Your task to perform on an android device: turn off location Image 0: 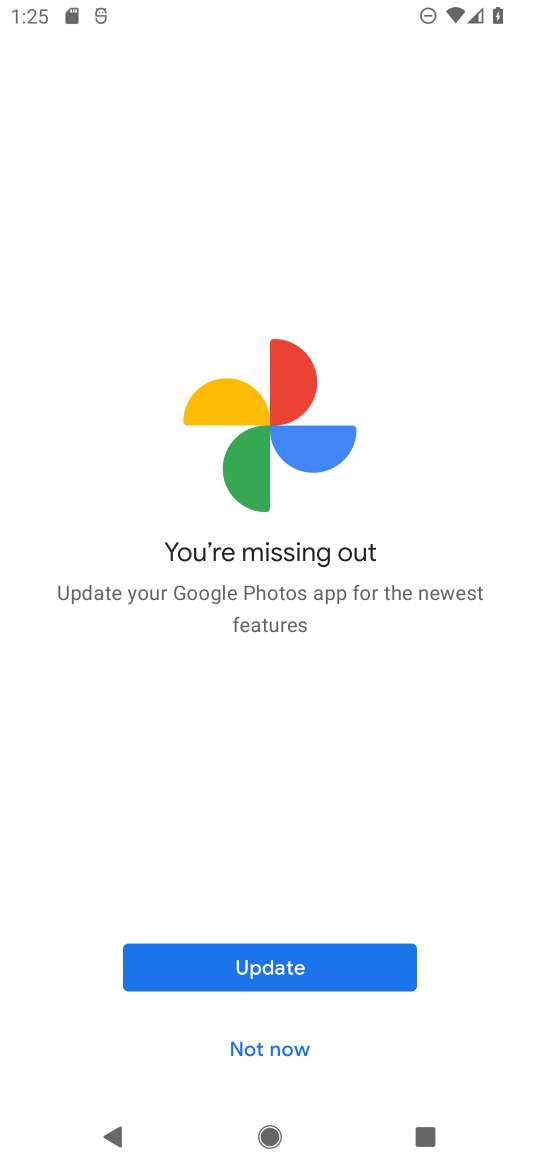
Step 0: click (327, 949)
Your task to perform on an android device: turn off location Image 1: 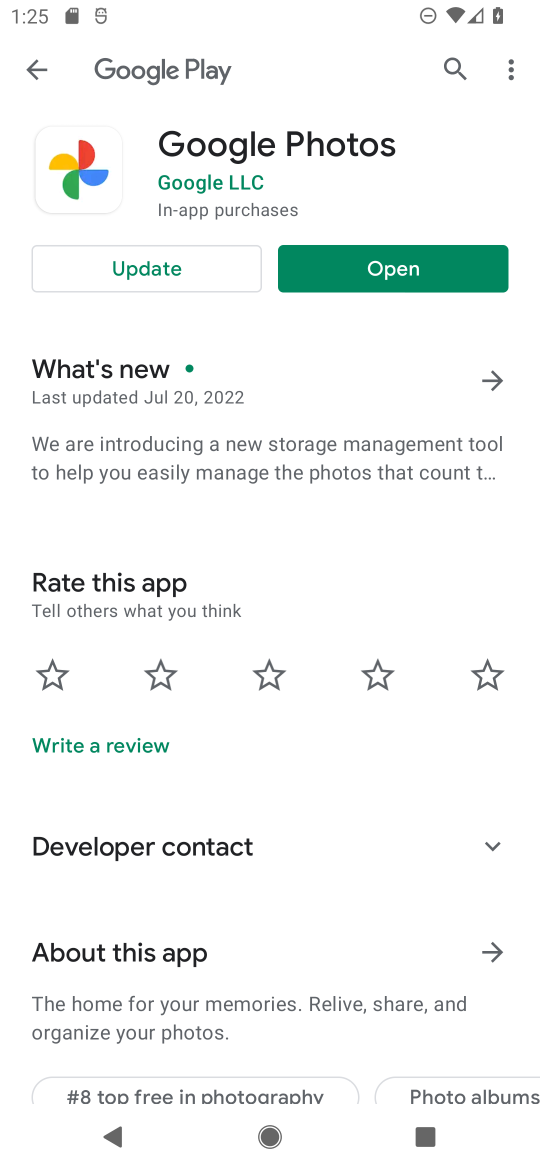
Step 1: press home button
Your task to perform on an android device: turn off location Image 2: 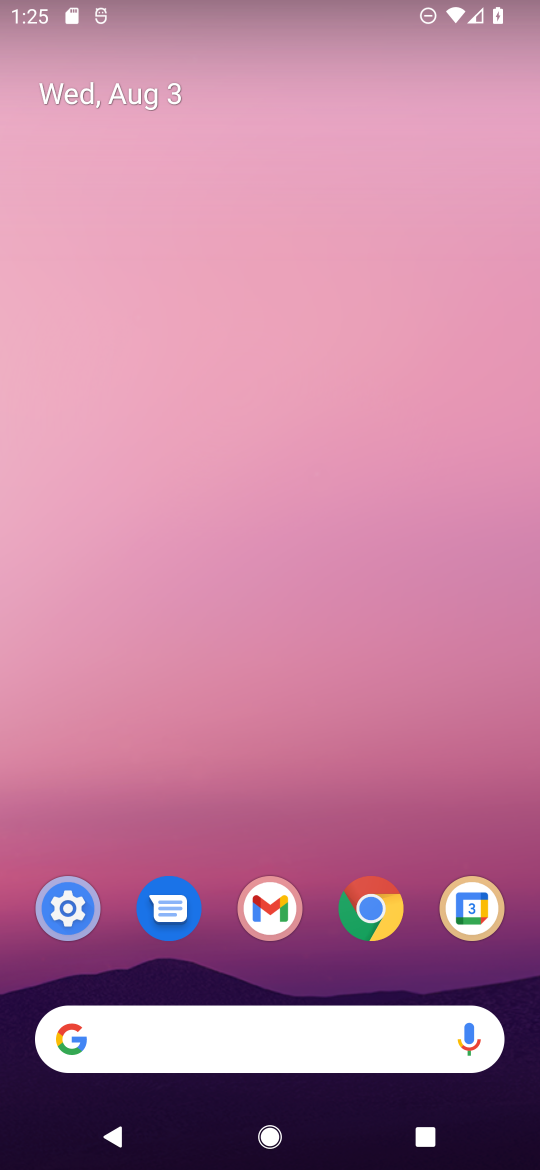
Step 2: click (67, 905)
Your task to perform on an android device: turn off location Image 3: 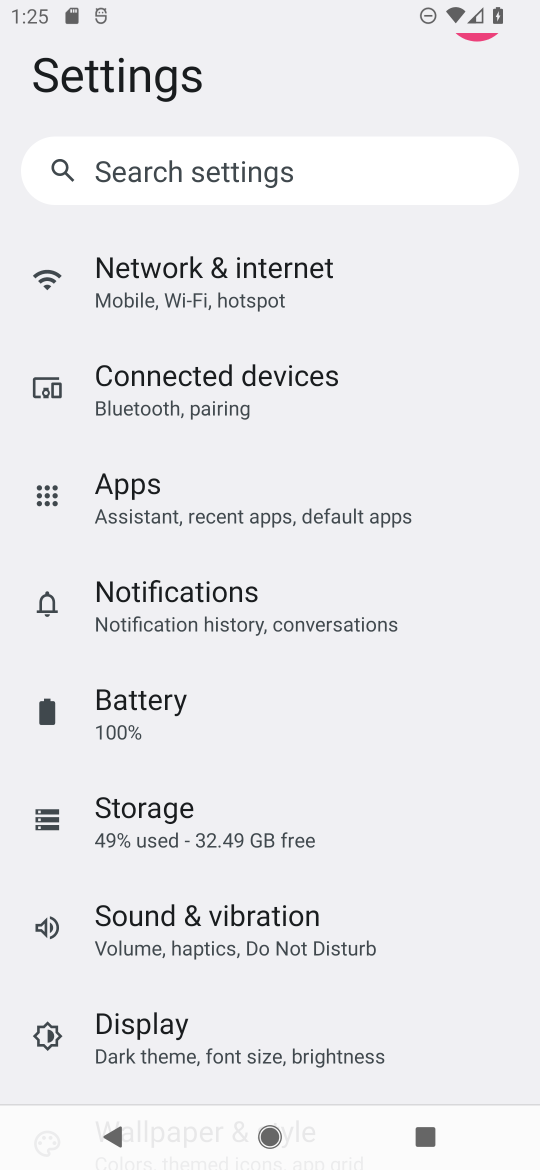
Step 3: drag from (223, 860) to (213, 398)
Your task to perform on an android device: turn off location Image 4: 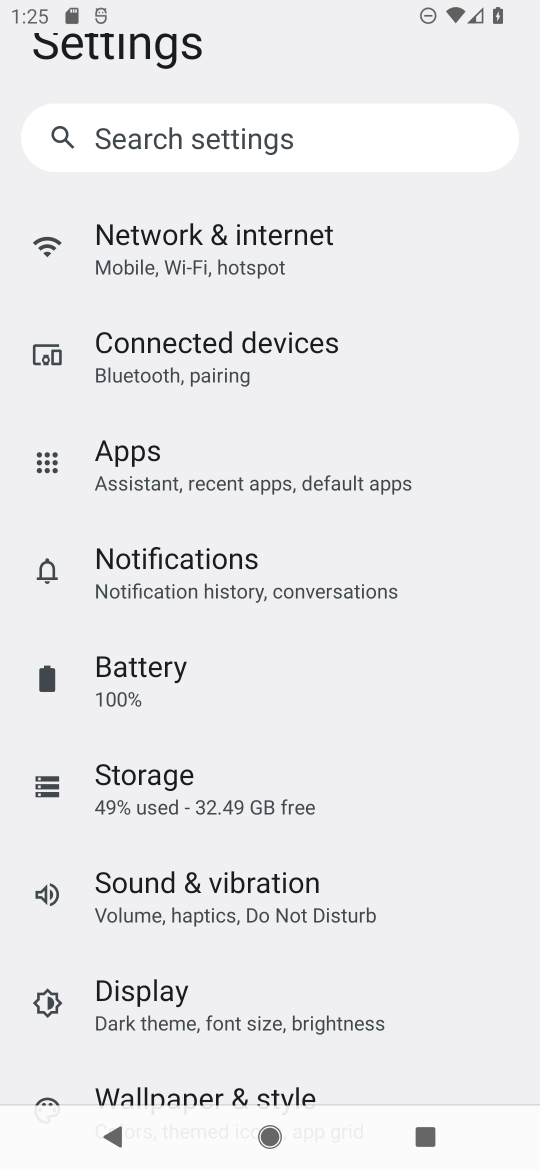
Step 4: drag from (250, 695) to (235, 415)
Your task to perform on an android device: turn off location Image 5: 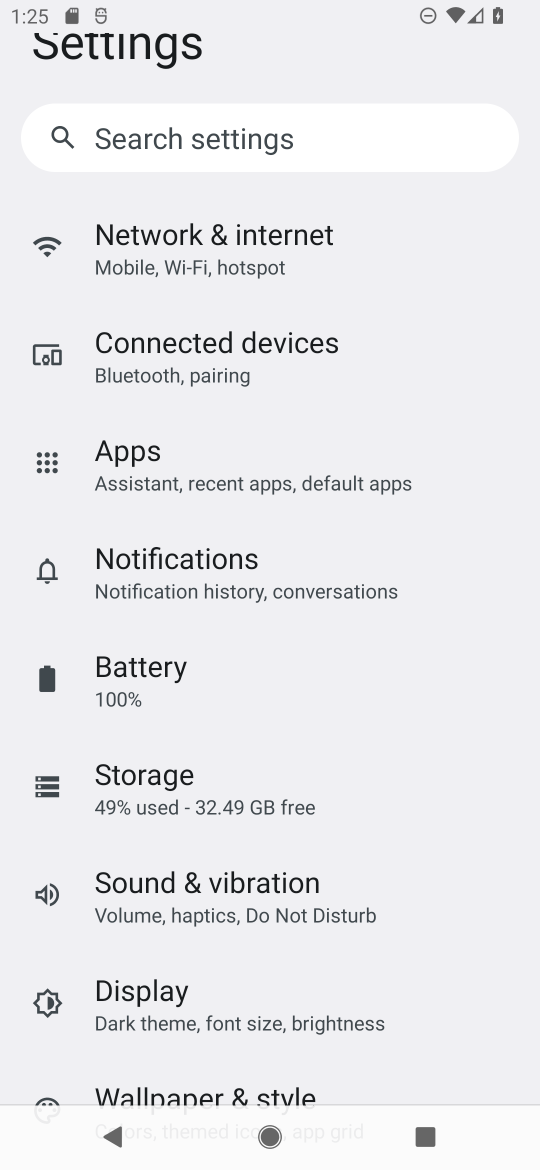
Step 5: drag from (201, 975) to (201, 424)
Your task to perform on an android device: turn off location Image 6: 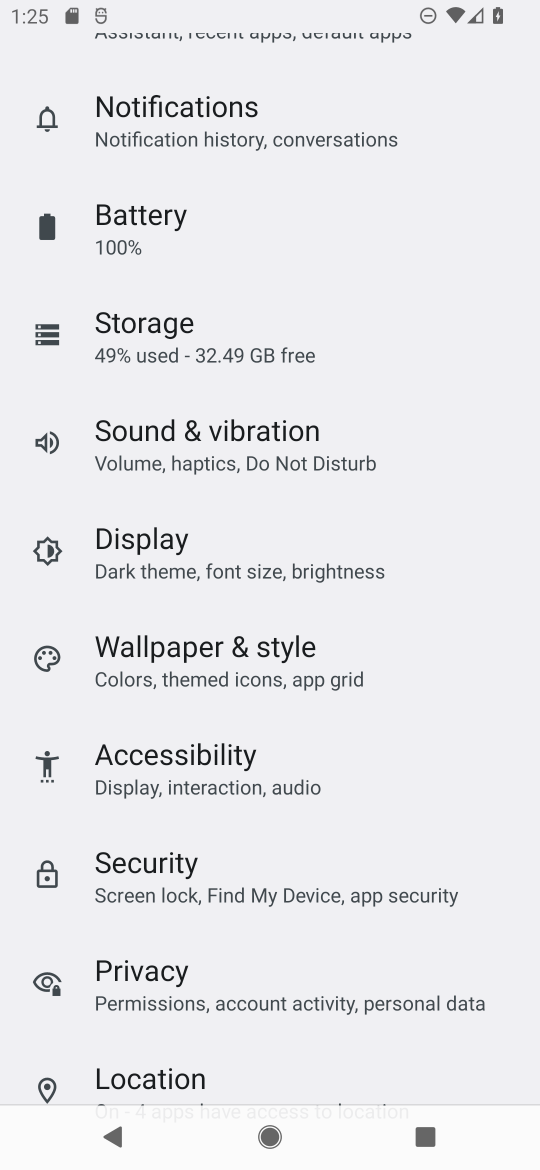
Step 6: click (148, 1082)
Your task to perform on an android device: turn off location Image 7: 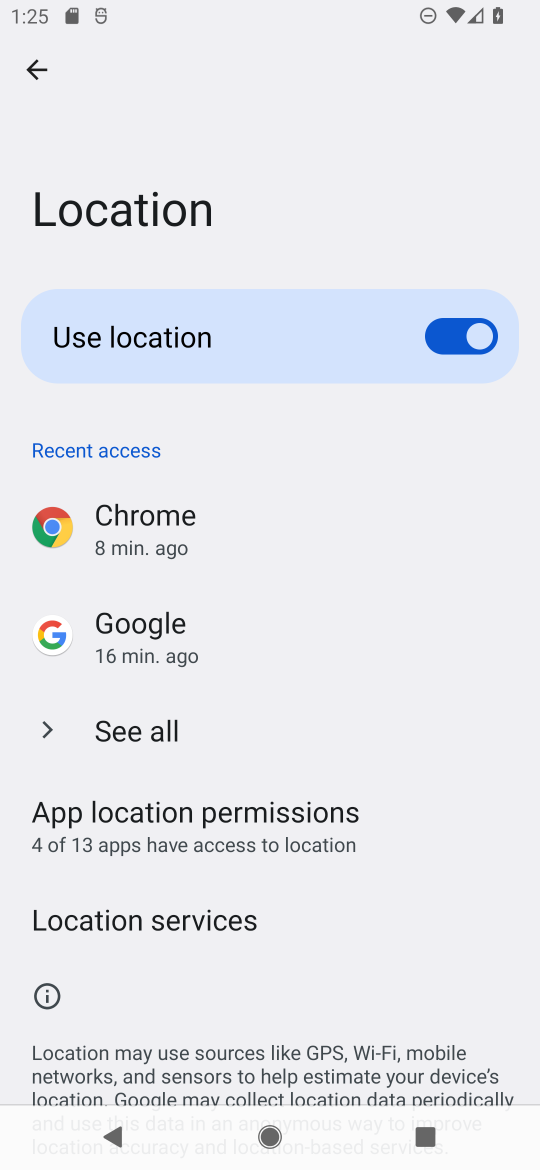
Step 7: click (446, 342)
Your task to perform on an android device: turn off location Image 8: 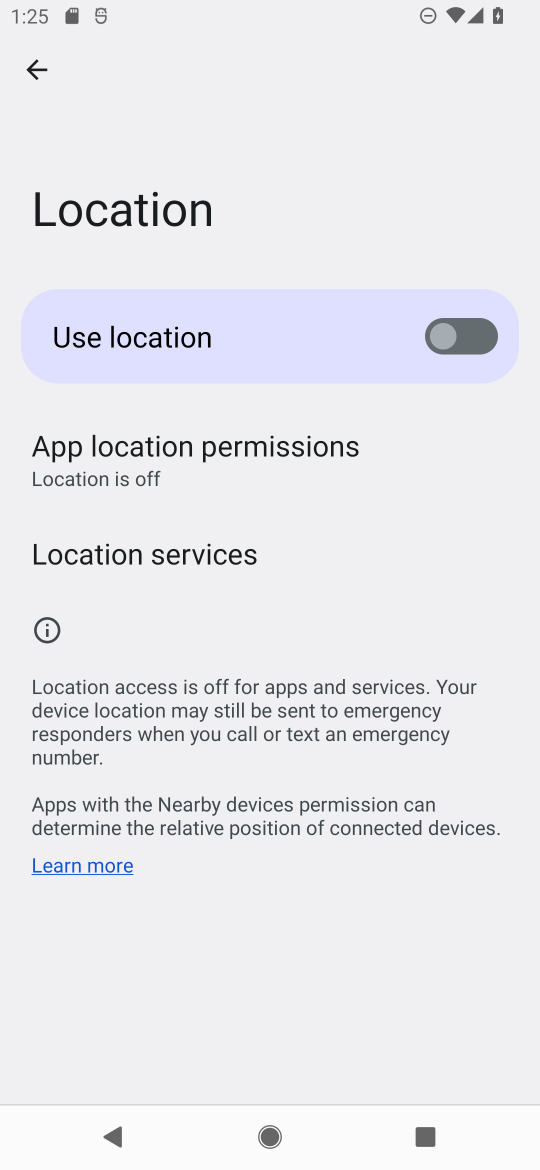
Step 8: task complete